Your task to perform on an android device: change the clock style Image 0: 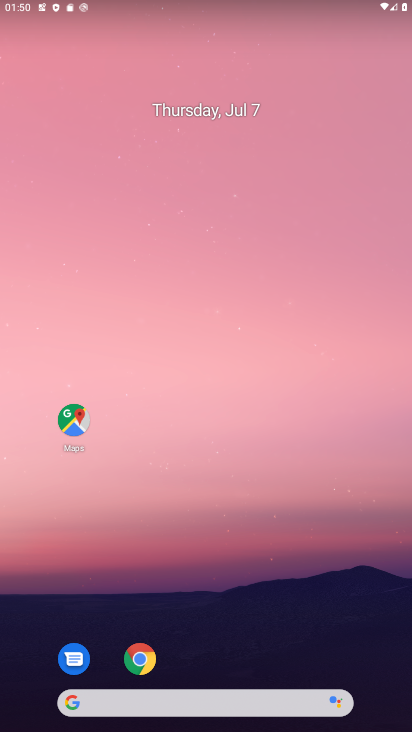
Step 0: drag from (230, 618) to (246, 102)
Your task to perform on an android device: change the clock style Image 1: 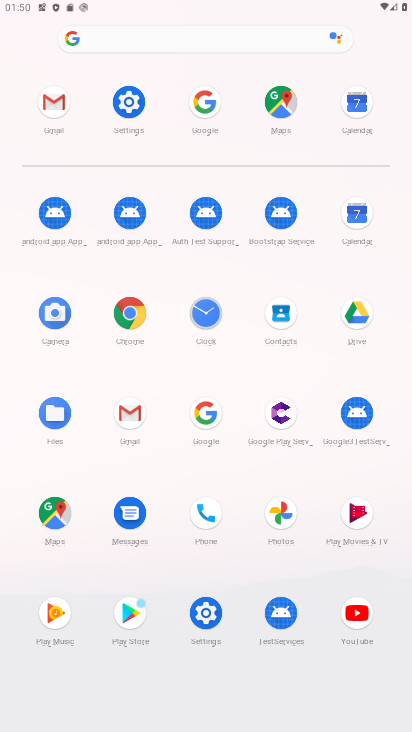
Step 1: click (205, 315)
Your task to perform on an android device: change the clock style Image 2: 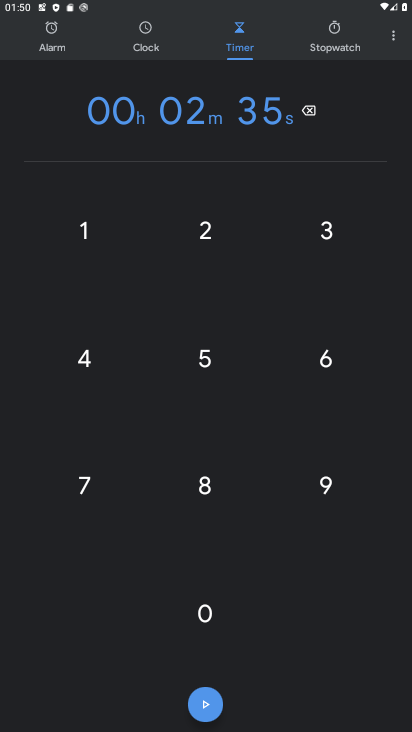
Step 2: click (383, 27)
Your task to perform on an android device: change the clock style Image 3: 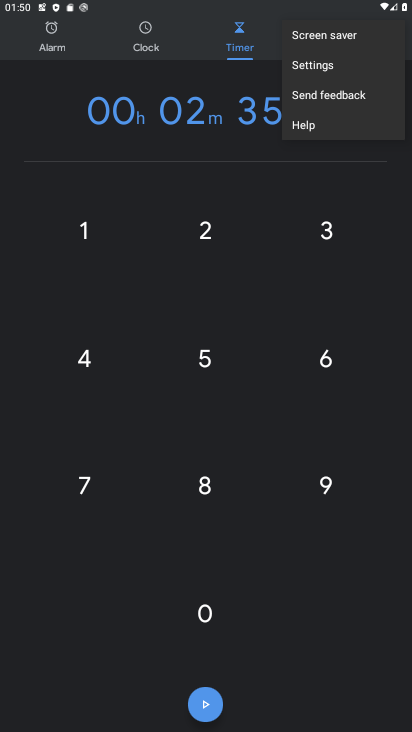
Step 3: click (328, 58)
Your task to perform on an android device: change the clock style Image 4: 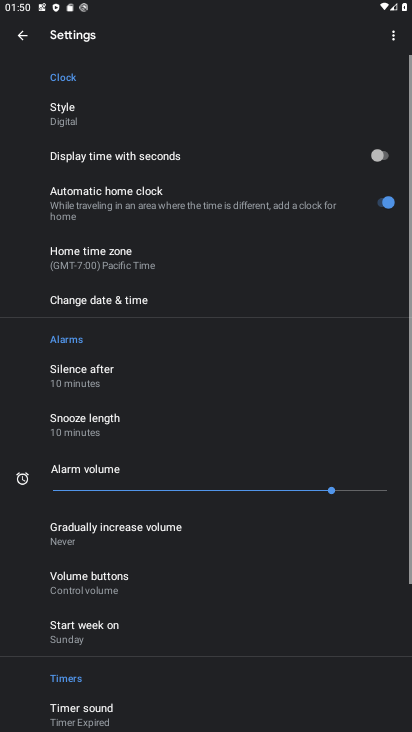
Step 4: click (87, 115)
Your task to perform on an android device: change the clock style Image 5: 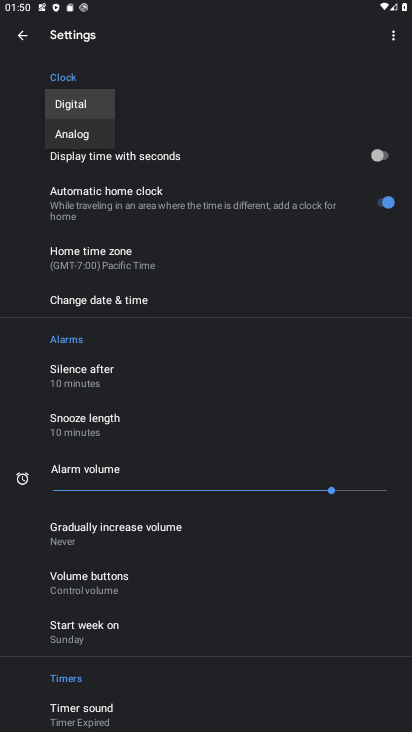
Step 5: click (81, 141)
Your task to perform on an android device: change the clock style Image 6: 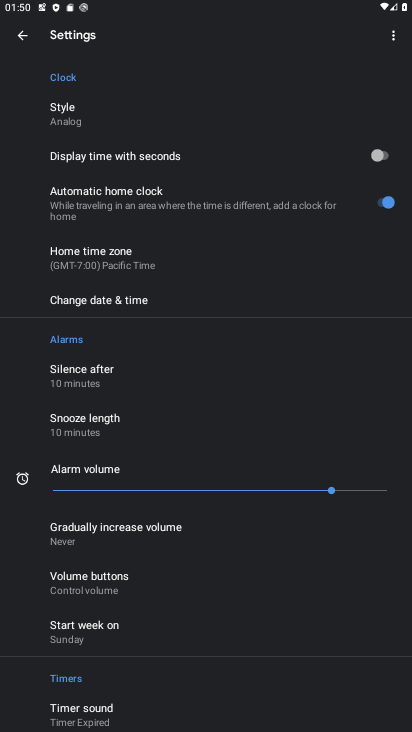
Step 6: task complete